Your task to perform on an android device: Open notification settings Image 0: 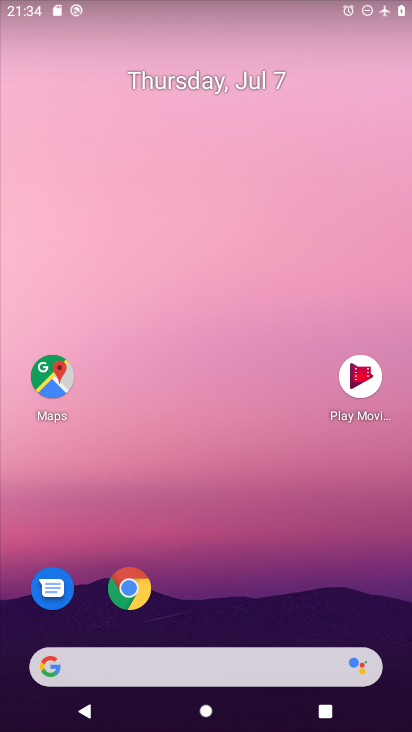
Step 0: drag from (333, 652) to (257, 291)
Your task to perform on an android device: Open notification settings Image 1: 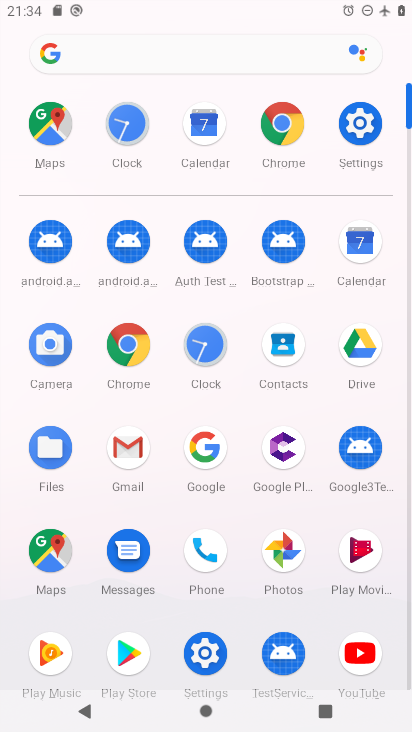
Step 1: click (356, 129)
Your task to perform on an android device: Open notification settings Image 2: 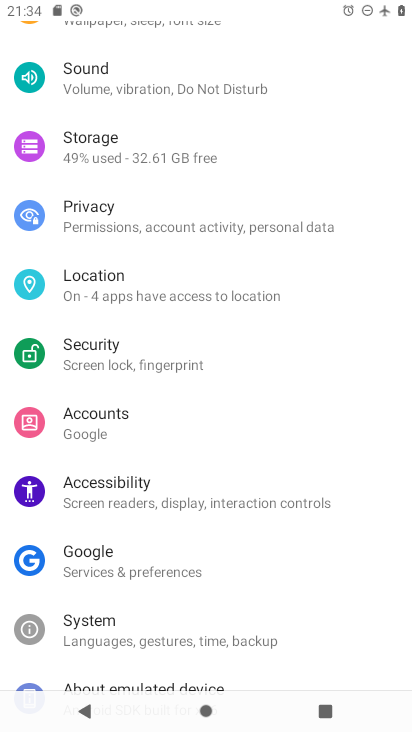
Step 2: drag from (142, 136) to (160, 568)
Your task to perform on an android device: Open notification settings Image 3: 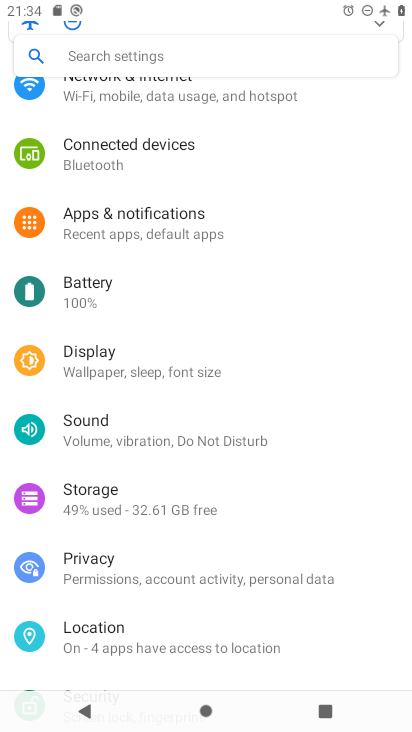
Step 3: click (136, 211)
Your task to perform on an android device: Open notification settings Image 4: 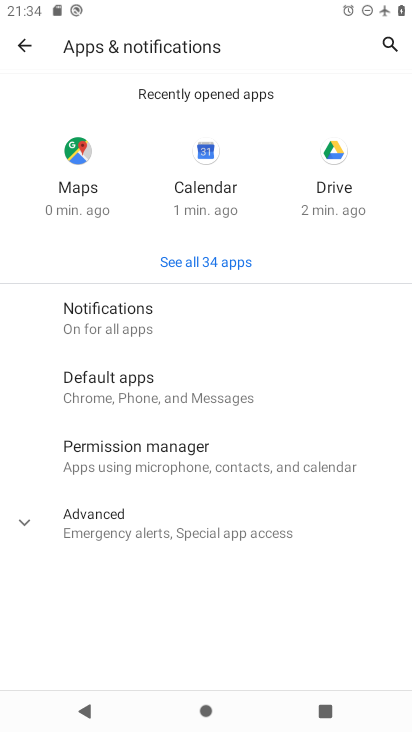
Step 4: task complete